Your task to perform on an android device: Go to battery settings Image 0: 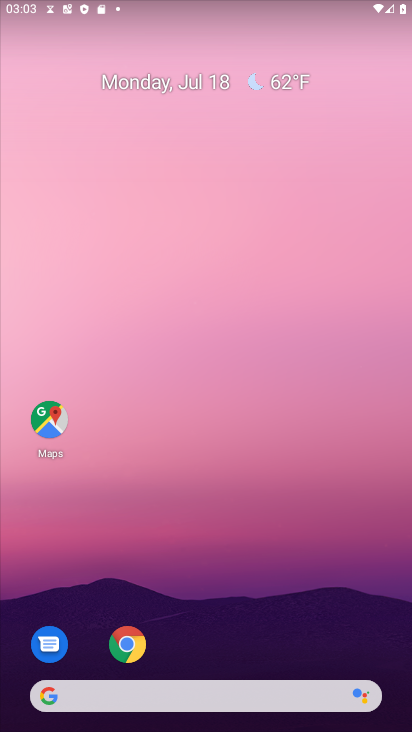
Step 0: drag from (295, 601) to (280, 197)
Your task to perform on an android device: Go to battery settings Image 1: 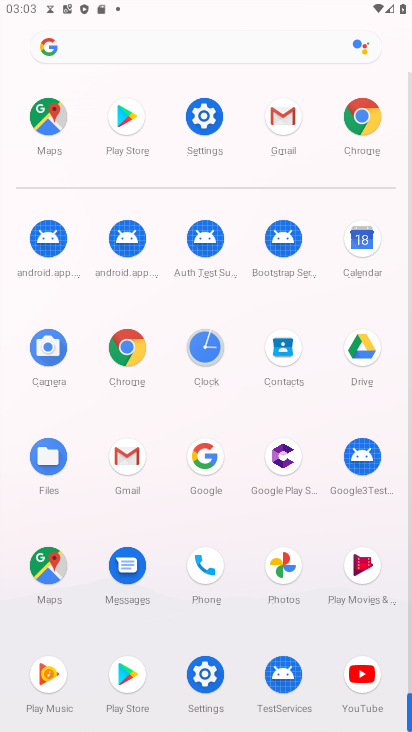
Step 1: drag from (232, 620) to (186, 255)
Your task to perform on an android device: Go to battery settings Image 2: 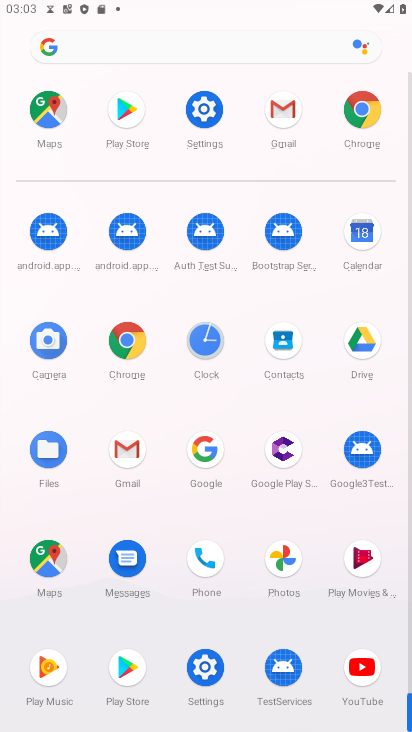
Step 2: click (205, 116)
Your task to perform on an android device: Go to battery settings Image 3: 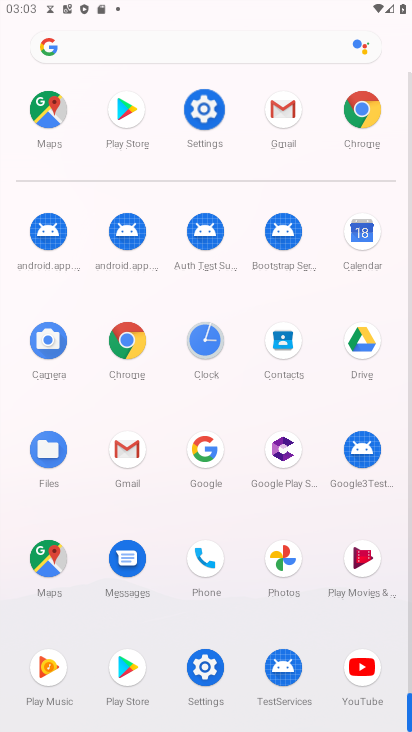
Step 3: click (206, 117)
Your task to perform on an android device: Go to battery settings Image 4: 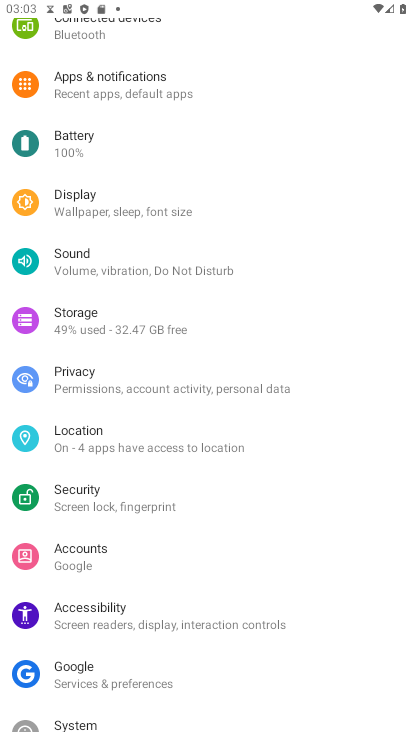
Step 4: click (64, 144)
Your task to perform on an android device: Go to battery settings Image 5: 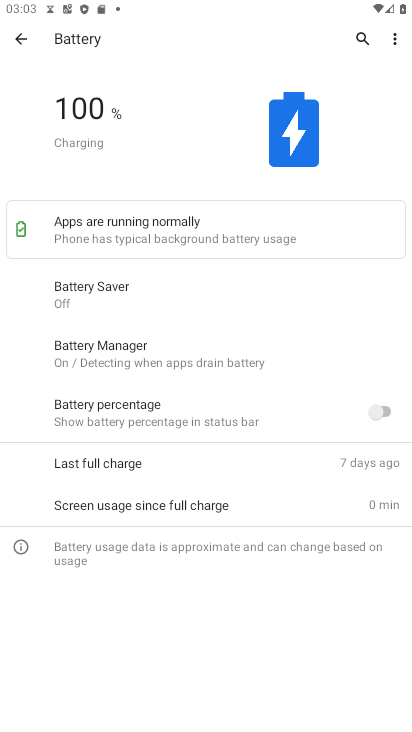
Step 5: task complete